Your task to perform on an android device: Open accessibility settings Image 0: 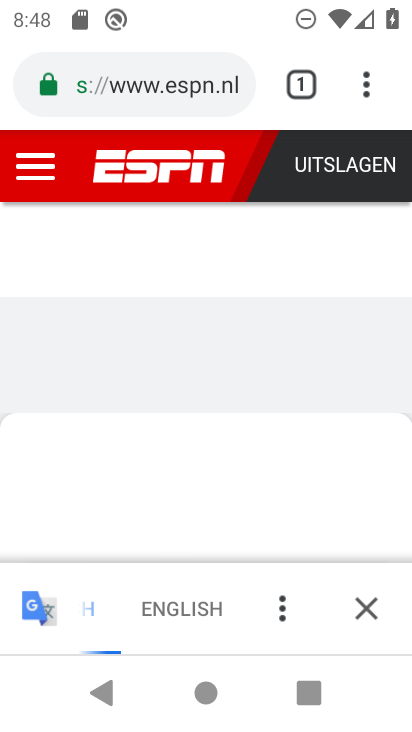
Step 0: press home button
Your task to perform on an android device: Open accessibility settings Image 1: 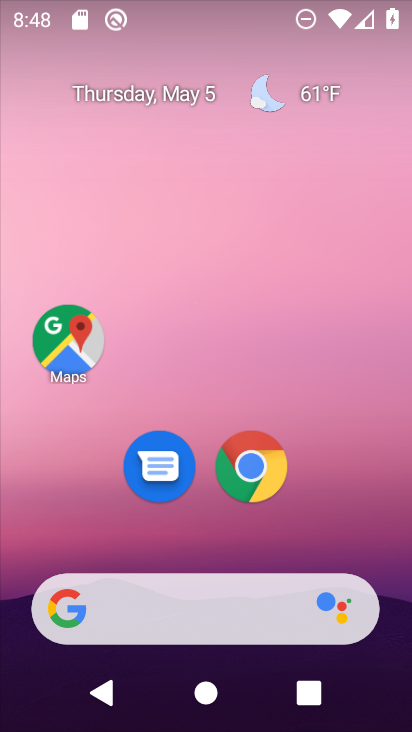
Step 1: drag from (169, 624) to (189, 79)
Your task to perform on an android device: Open accessibility settings Image 2: 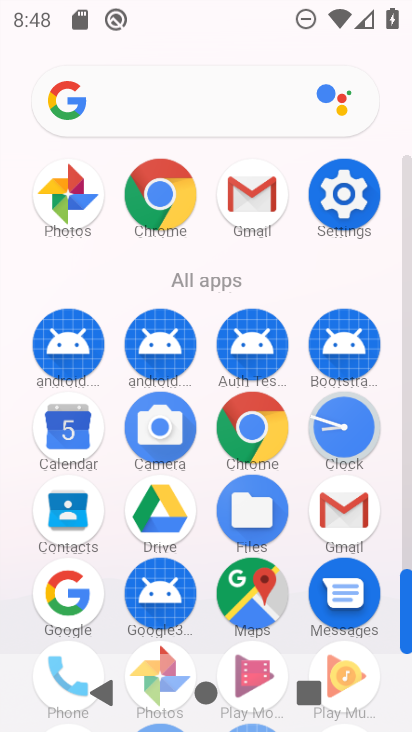
Step 2: click (331, 190)
Your task to perform on an android device: Open accessibility settings Image 3: 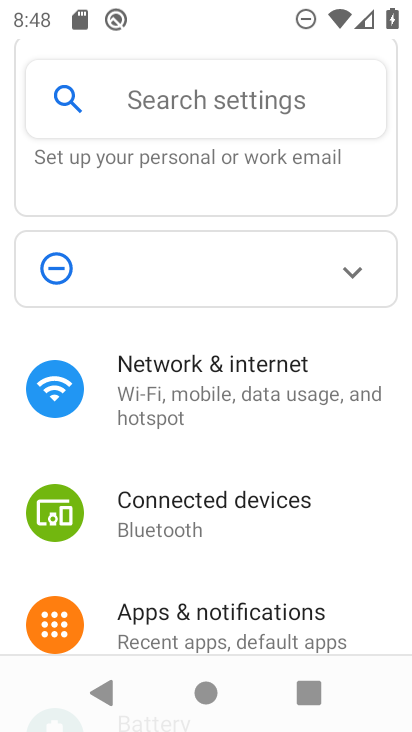
Step 3: drag from (287, 457) to (254, 123)
Your task to perform on an android device: Open accessibility settings Image 4: 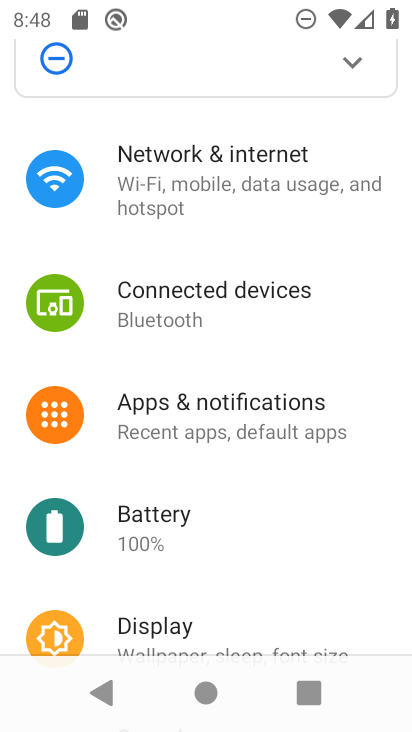
Step 4: drag from (248, 531) to (219, 4)
Your task to perform on an android device: Open accessibility settings Image 5: 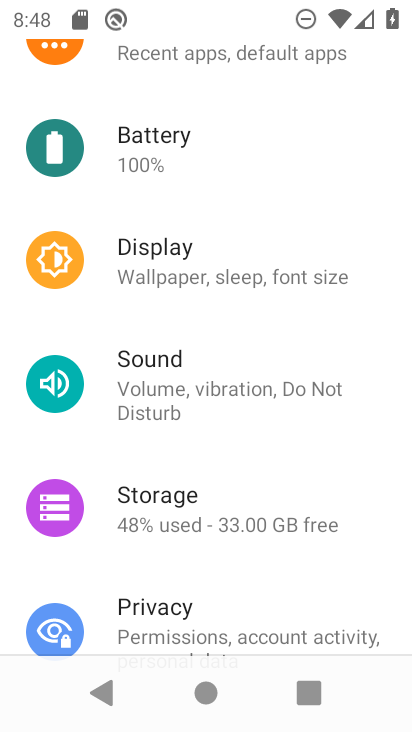
Step 5: drag from (262, 557) to (255, 96)
Your task to perform on an android device: Open accessibility settings Image 6: 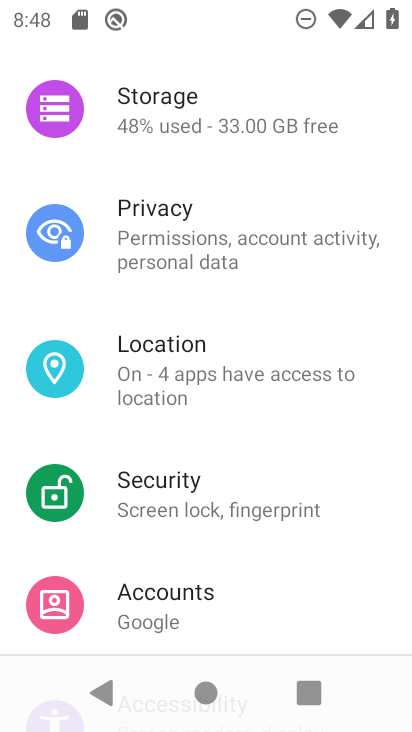
Step 6: drag from (220, 578) to (199, 73)
Your task to perform on an android device: Open accessibility settings Image 7: 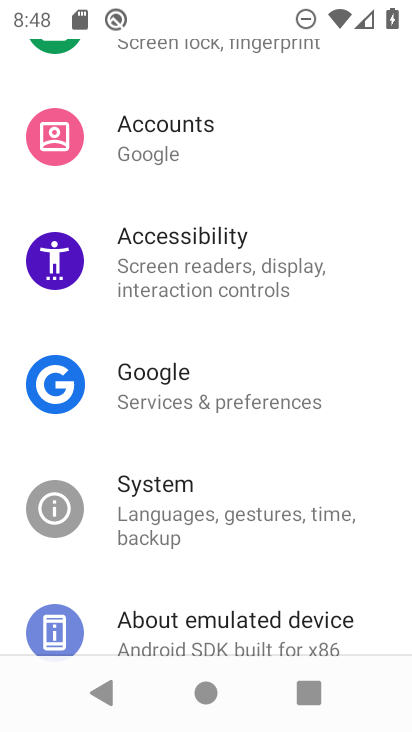
Step 7: click (192, 257)
Your task to perform on an android device: Open accessibility settings Image 8: 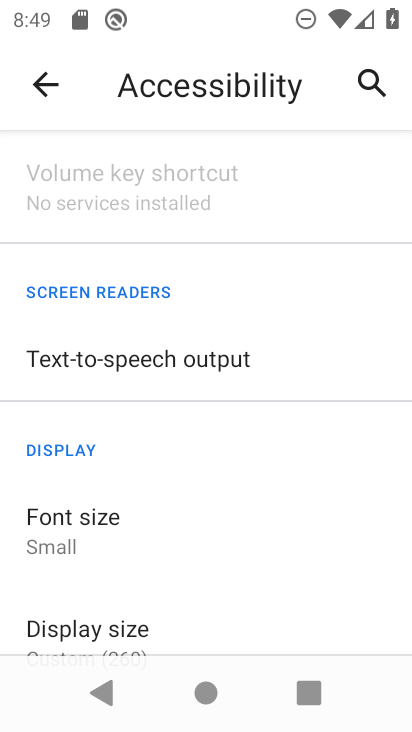
Step 8: task complete